Your task to perform on an android device: turn off sleep mode Image 0: 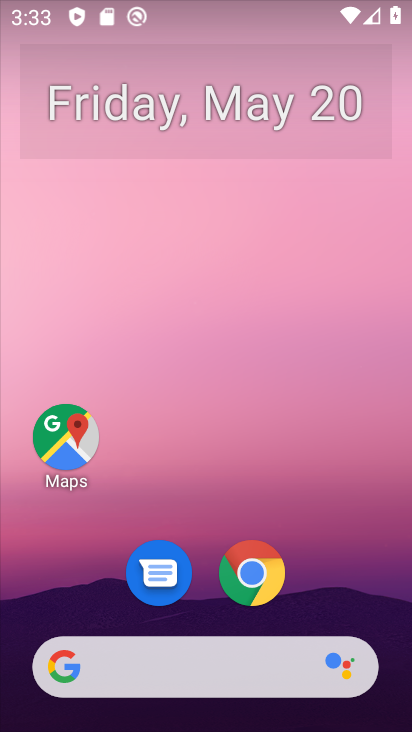
Step 0: drag from (380, 547) to (350, 159)
Your task to perform on an android device: turn off sleep mode Image 1: 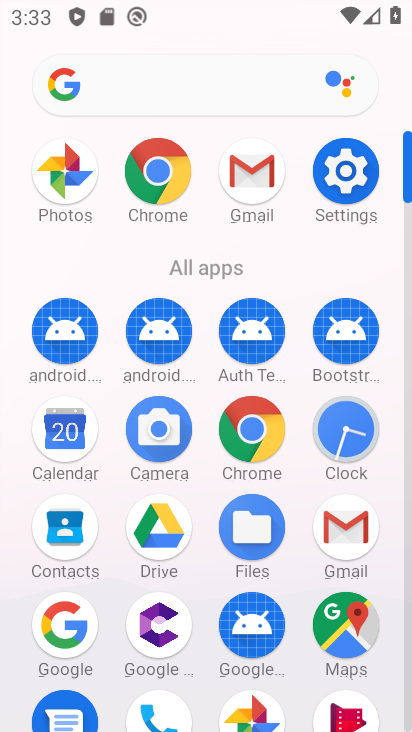
Step 1: click (350, 177)
Your task to perform on an android device: turn off sleep mode Image 2: 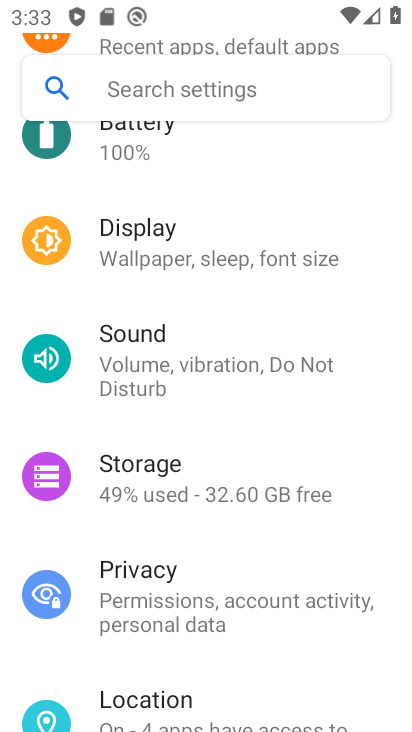
Step 2: click (223, 81)
Your task to perform on an android device: turn off sleep mode Image 3: 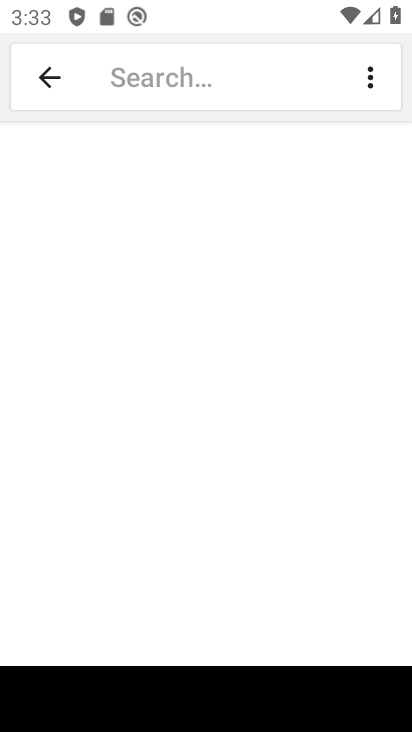
Step 3: type "sleep mode"
Your task to perform on an android device: turn off sleep mode Image 4: 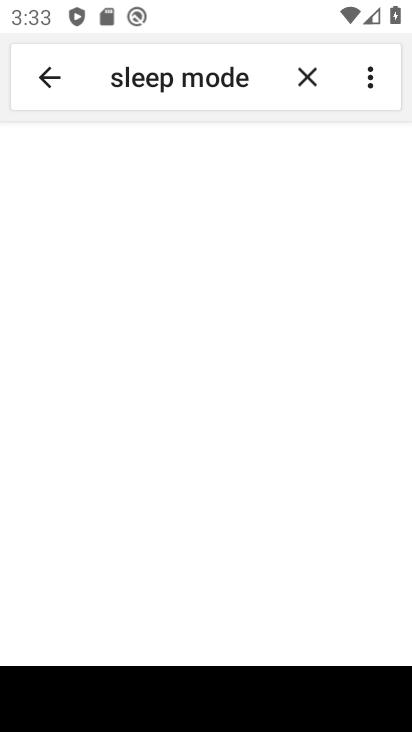
Step 4: task complete